Your task to perform on an android device: Set the phone to "Do not disturb". Image 0: 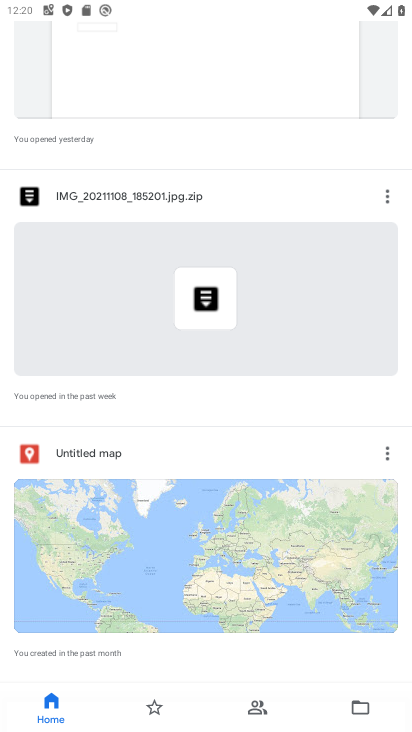
Step 0: press home button
Your task to perform on an android device: Set the phone to "Do not disturb". Image 1: 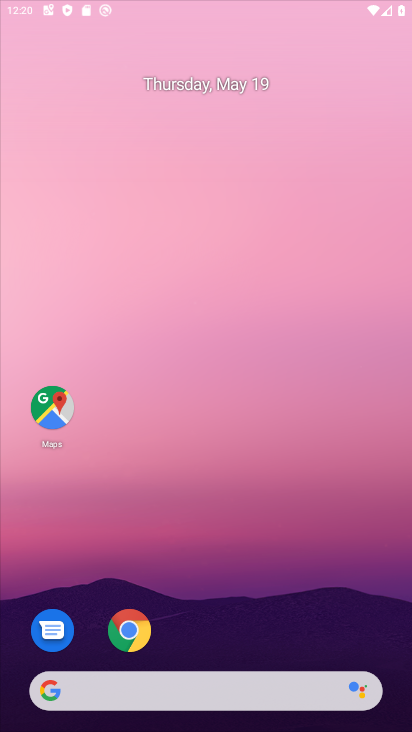
Step 1: drag from (212, 595) to (152, 2)
Your task to perform on an android device: Set the phone to "Do not disturb". Image 2: 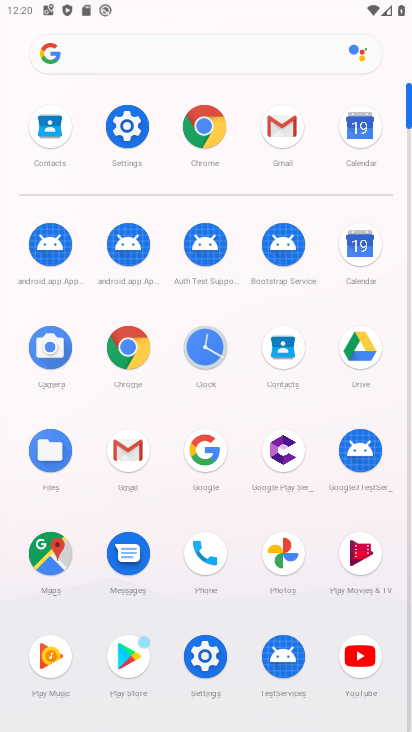
Step 2: click (114, 137)
Your task to perform on an android device: Set the phone to "Do not disturb". Image 3: 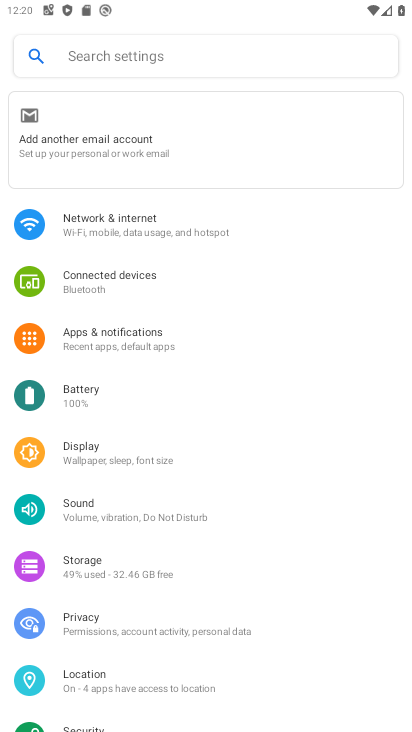
Step 3: drag from (214, 533) to (347, 61)
Your task to perform on an android device: Set the phone to "Do not disturb". Image 4: 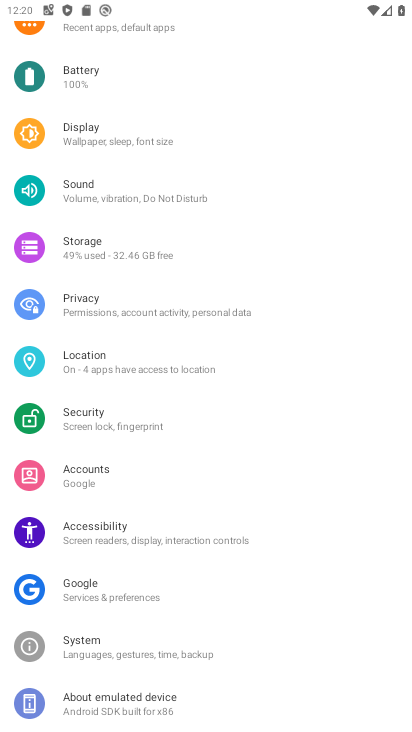
Step 4: drag from (222, 441) to (279, 115)
Your task to perform on an android device: Set the phone to "Do not disturb". Image 5: 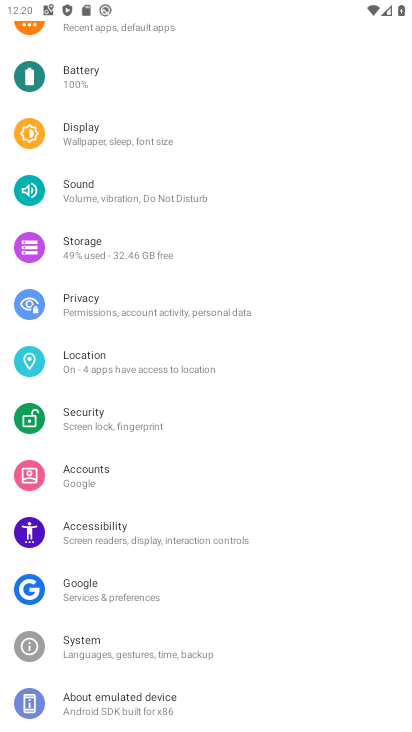
Step 5: drag from (143, 651) to (178, 315)
Your task to perform on an android device: Set the phone to "Do not disturb". Image 6: 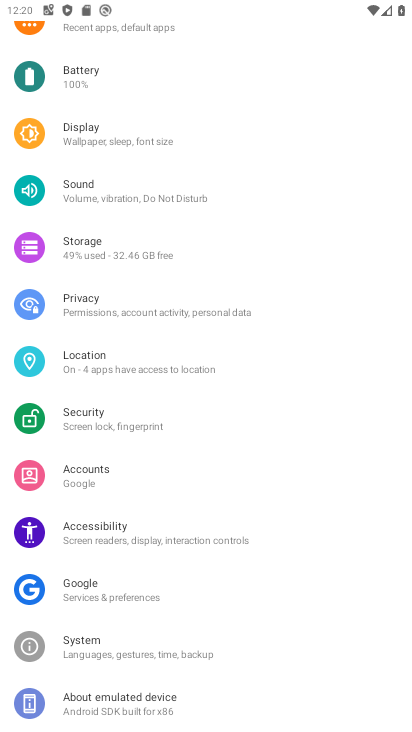
Step 6: drag from (166, 184) to (219, 617)
Your task to perform on an android device: Set the phone to "Do not disturb". Image 7: 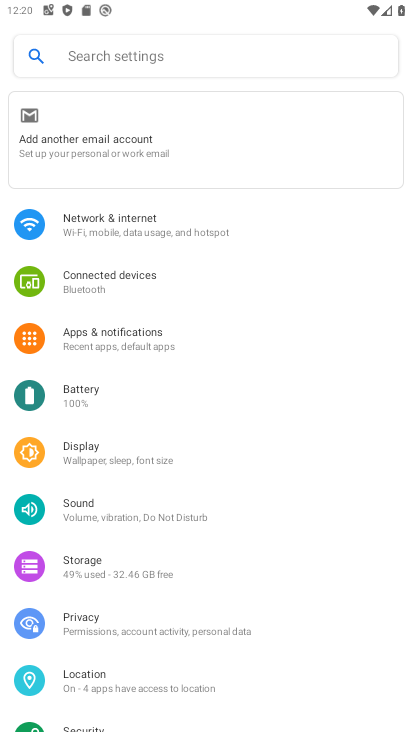
Step 7: click (115, 336)
Your task to perform on an android device: Set the phone to "Do not disturb". Image 8: 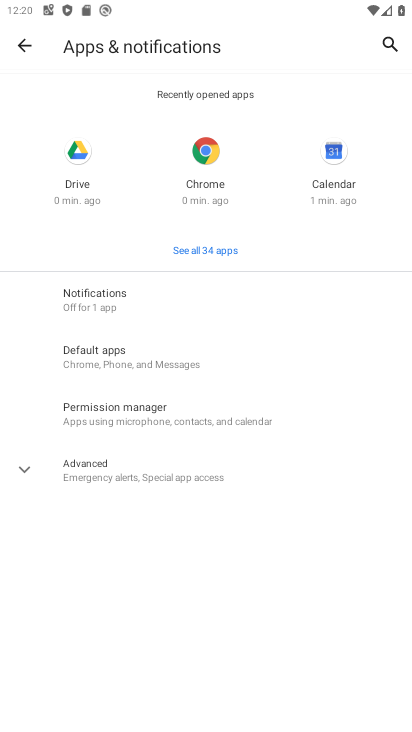
Step 8: click (144, 290)
Your task to perform on an android device: Set the phone to "Do not disturb". Image 9: 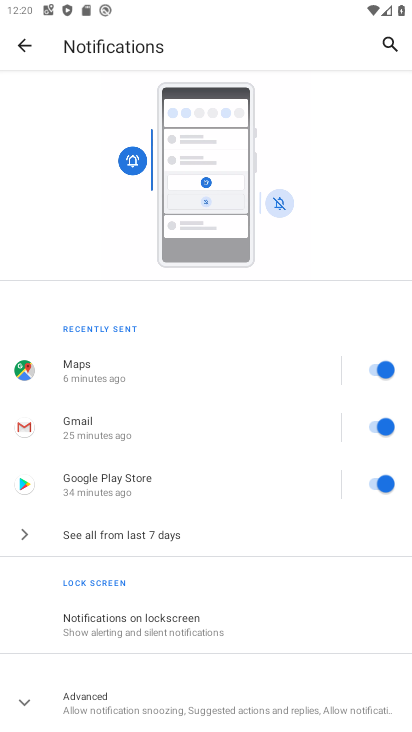
Step 9: click (110, 695)
Your task to perform on an android device: Set the phone to "Do not disturb". Image 10: 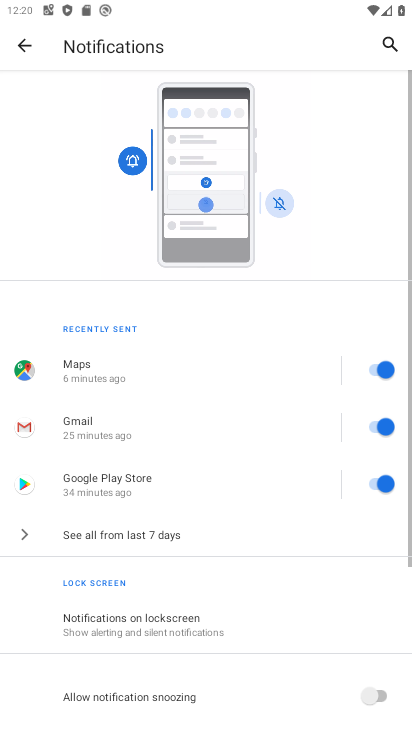
Step 10: drag from (129, 689) to (196, 97)
Your task to perform on an android device: Set the phone to "Do not disturb". Image 11: 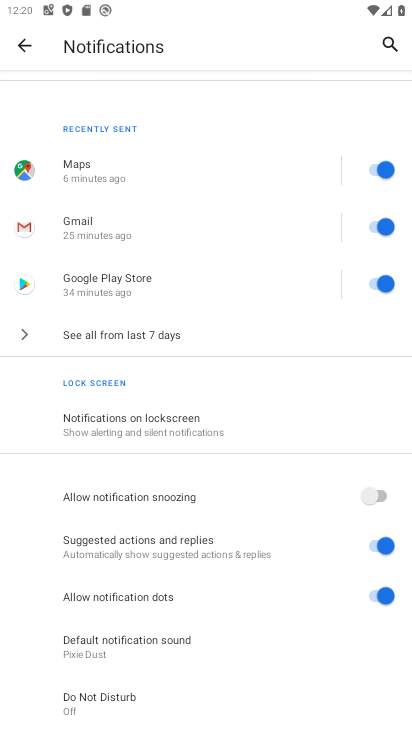
Step 11: click (146, 708)
Your task to perform on an android device: Set the phone to "Do not disturb". Image 12: 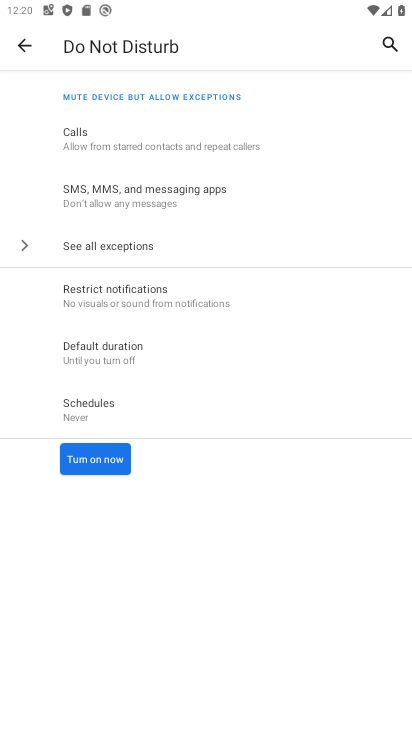
Step 12: click (83, 463)
Your task to perform on an android device: Set the phone to "Do not disturb". Image 13: 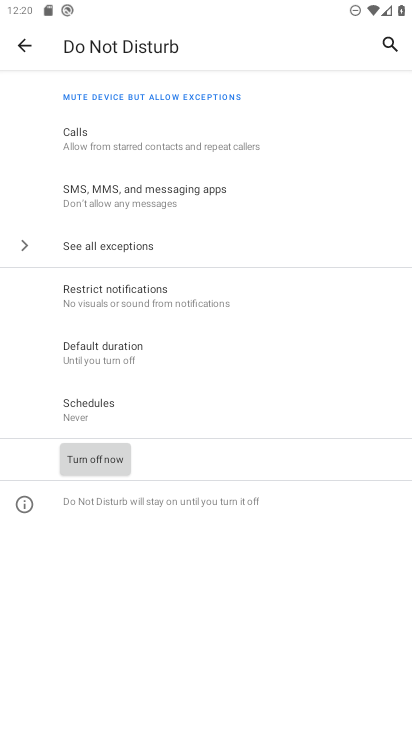
Step 13: task complete